Your task to perform on an android device: Go to Yahoo.com Image 0: 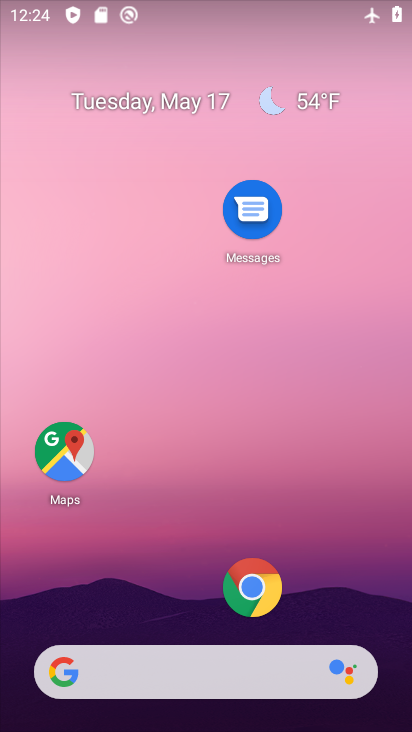
Step 0: click (255, 594)
Your task to perform on an android device: Go to Yahoo.com Image 1: 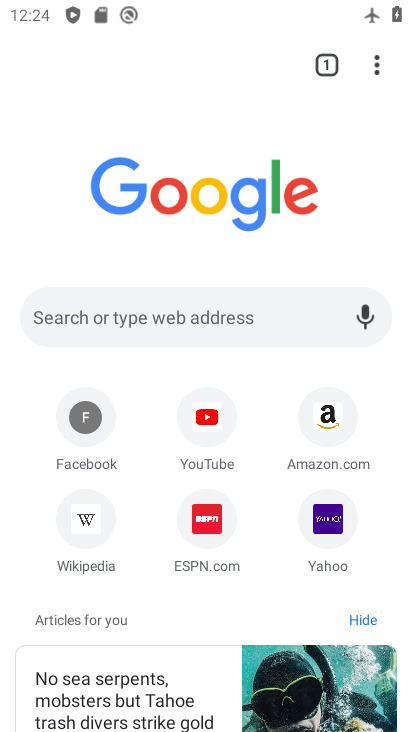
Step 1: click (335, 546)
Your task to perform on an android device: Go to Yahoo.com Image 2: 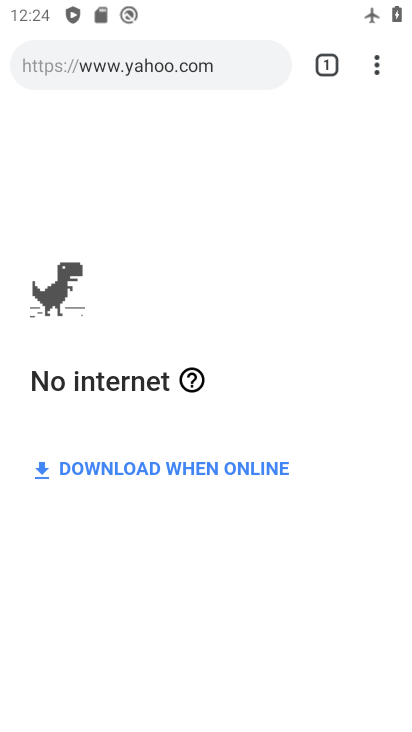
Step 2: task complete